Your task to perform on an android device: Open Youtube and go to "Your channel" Image 0: 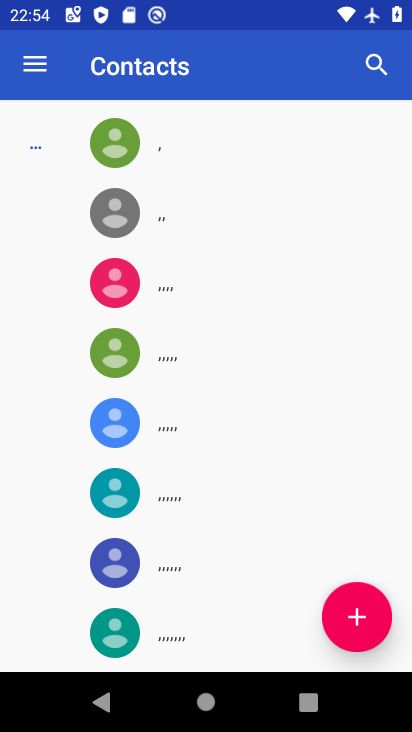
Step 0: press home button
Your task to perform on an android device: Open Youtube and go to "Your channel" Image 1: 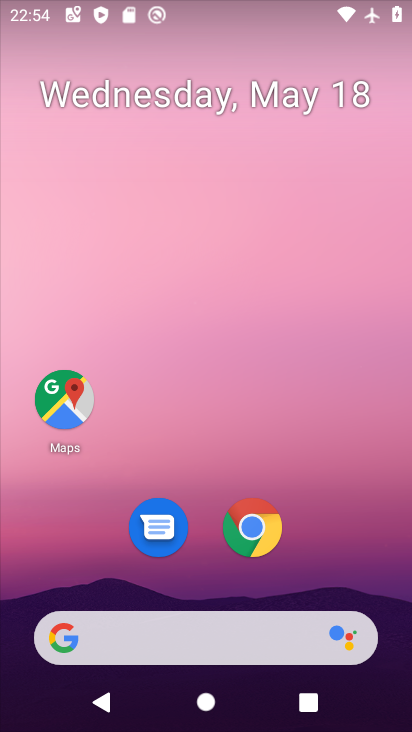
Step 1: drag from (346, 579) to (355, 213)
Your task to perform on an android device: Open Youtube and go to "Your channel" Image 2: 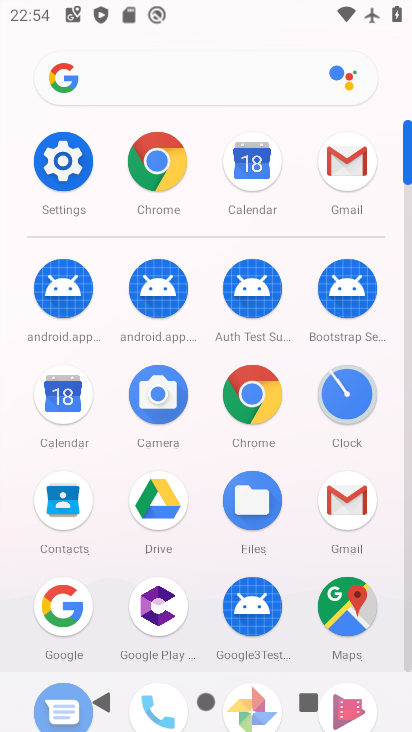
Step 2: click (405, 655)
Your task to perform on an android device: Open Youtube and go to "Your channel" Image 3: 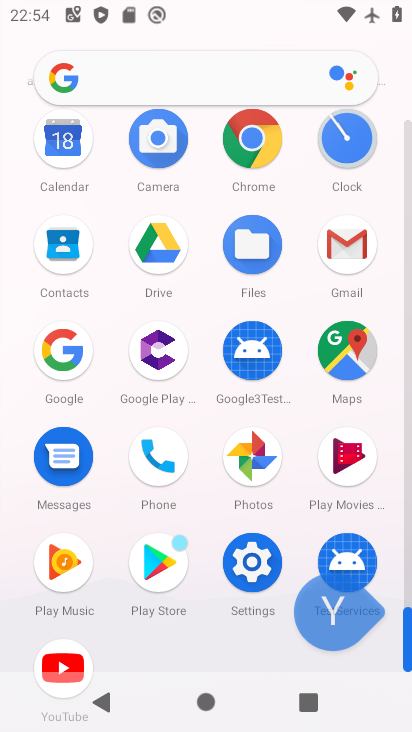
Step 3: click (405, 655)
Your task to perform on an android device: Open Youtube and go to "Your channel" Image 4: 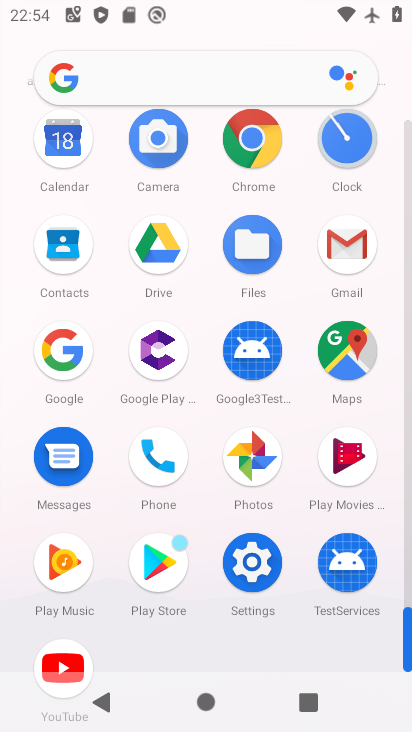
Step 4: click (72, 659)
Your task to perform on an android device: Open Youtube and go to "Your channel" Image 5: 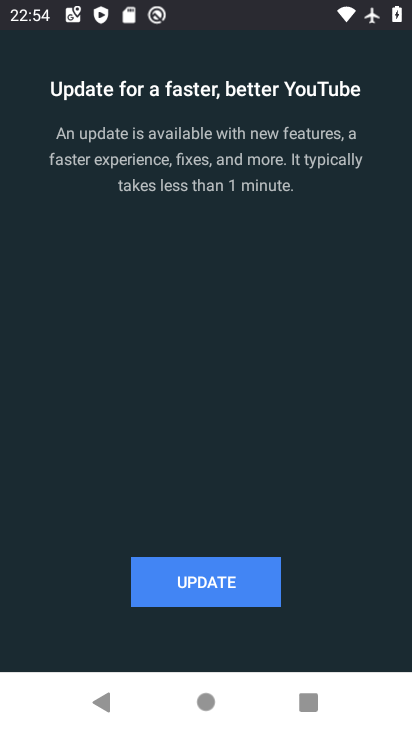
Step 5: click (184, 585)
Your task to perform on an android device: Open Youtube and go to "Your channel" Image 6: 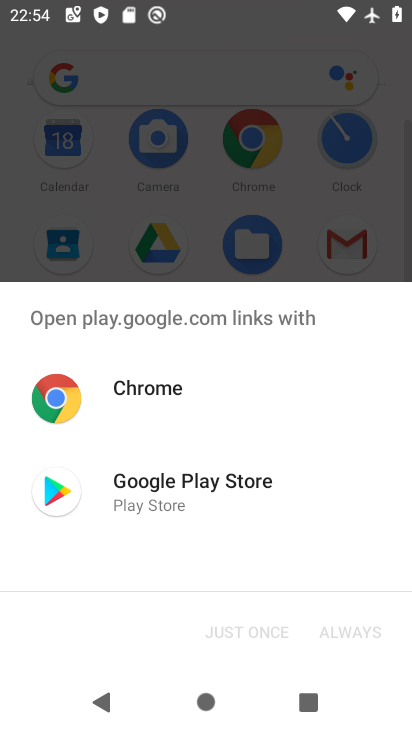
Step 6: click (180, 504)
Your task to perform on an android device: Open Youtube and go to "Your channel" Image 7: 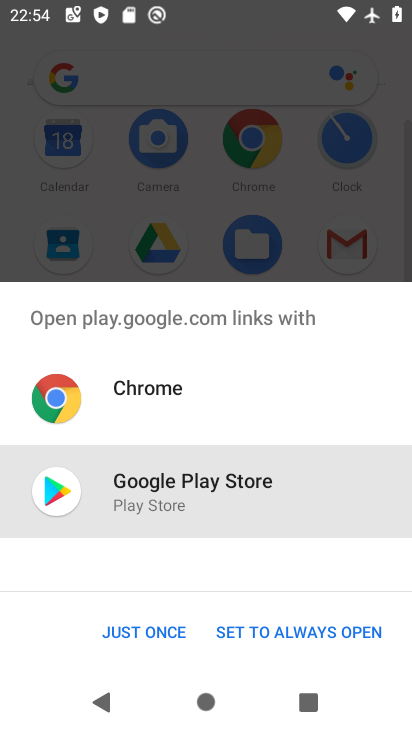
Step 7: click (133, 626)
Your task to perform on an android device: Open Youtube and go to "Your channel" Image 8: 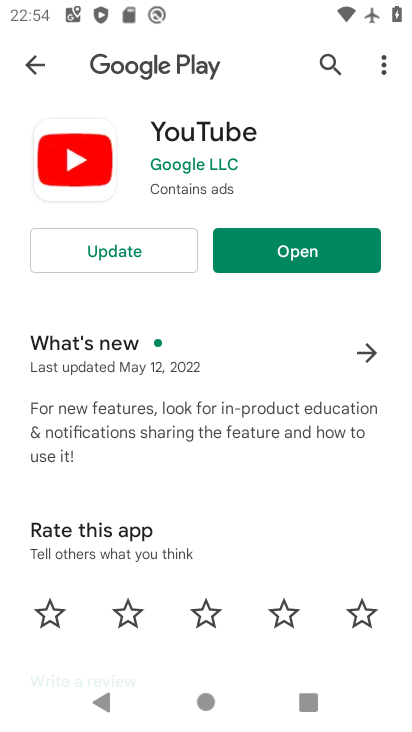
Step 8: click (161, 241)
Your task to perform on an android device: Open Youtube and go to "Your channel" Image 9: 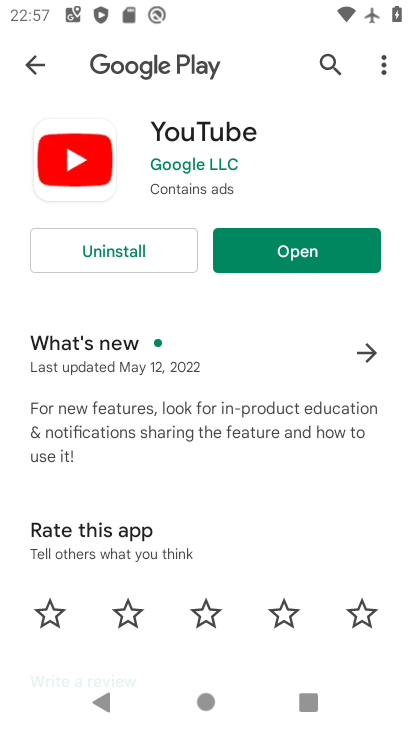
Step 9: click (282, 268)
Your task to perform on an android device: Open Youtube and go to "Your channel" Image 10: 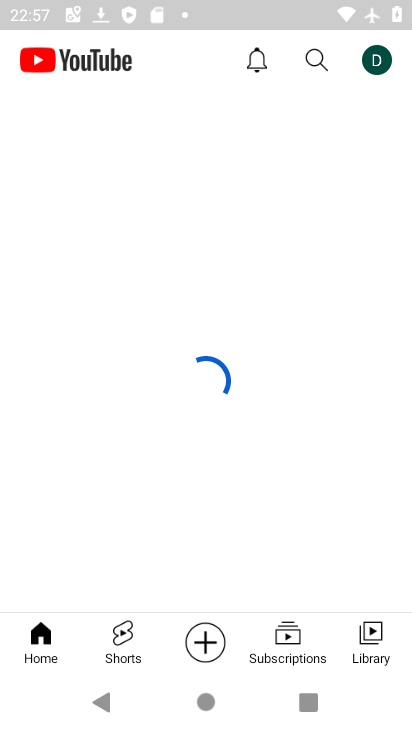
Step 10: click (355, 639)
Your task to perform on an android device: Open Youtube and go to "Your channel" Image 11: 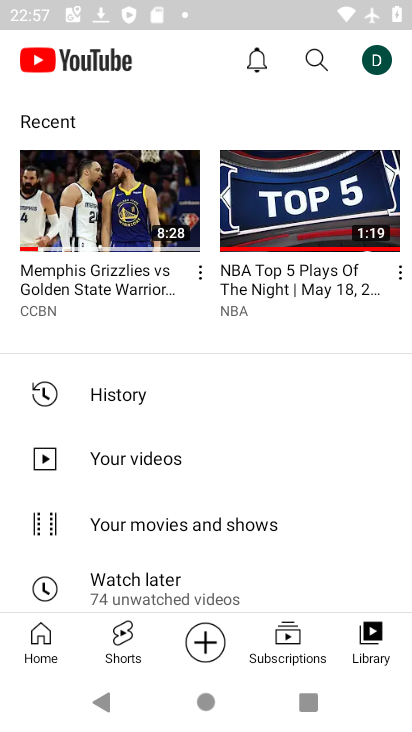
Step 11: click (372, 60)
Your task to perform on an android device: Open Youtube and go to "Your channel" Image 12: 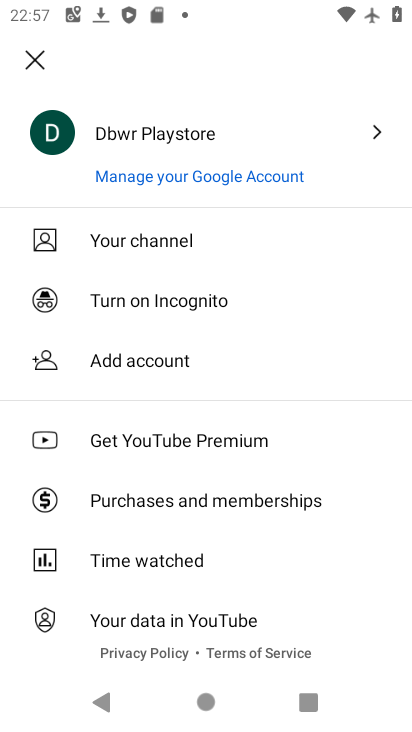
Step 12: click (248, 226)
Your task to perform on an android device: Open Youtube and go to "Your channel" Image 13: 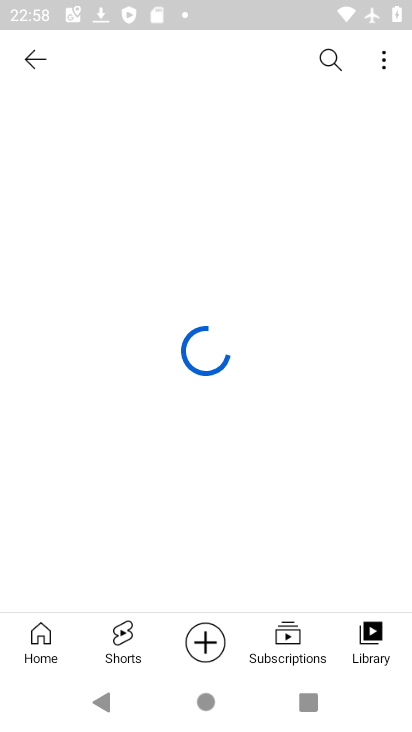
Step 13: task complete